Your task to perform on an android device: Go to network settings Image 0: 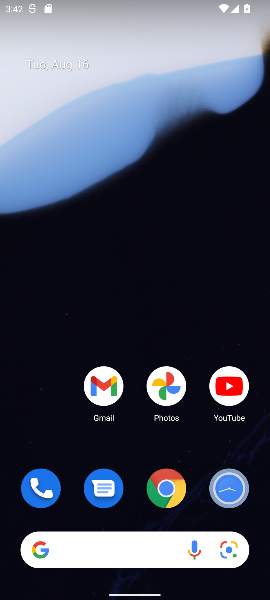
Step 0: drag from (37, 415) to (77, 195)
Your task to perform on an android device: Go to network settings Image 1: 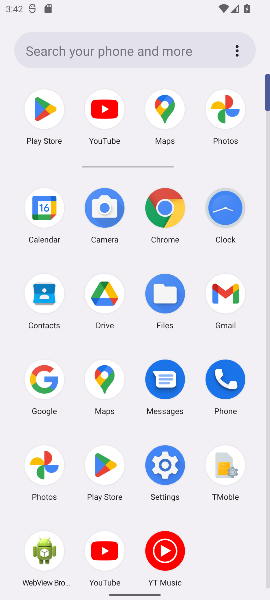
Step 1: click (165, 470)
Your task to perform on an android device: Go to network settings Image 2: 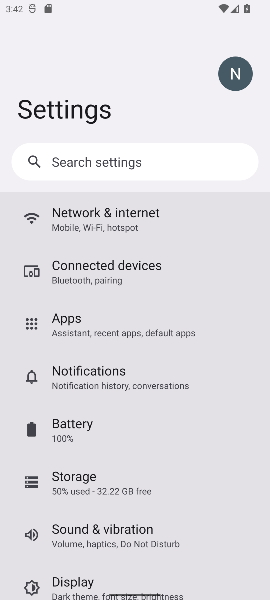
Step 2: task complete